Your task to perform on an android device: Check the news Image 0: 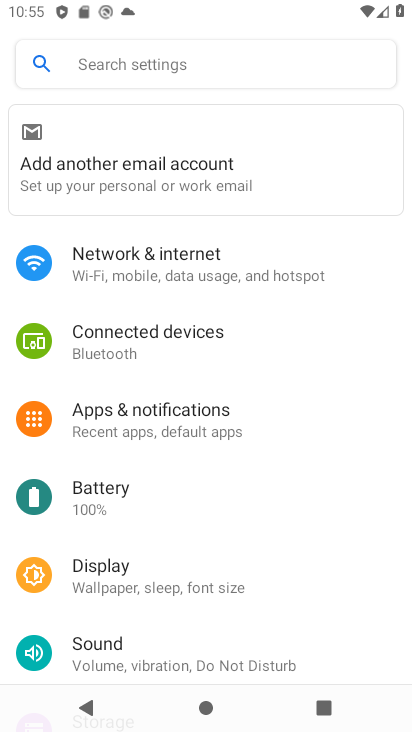
Step 0: press home button
Your task to perform on an android device: Check the news Image 1: 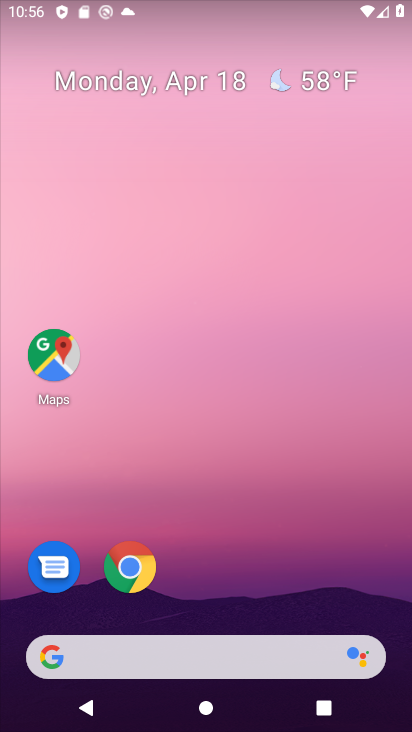
Step 1: task complete